Your task to perform on an android device: visit the assistant section in the google photos Image 0: 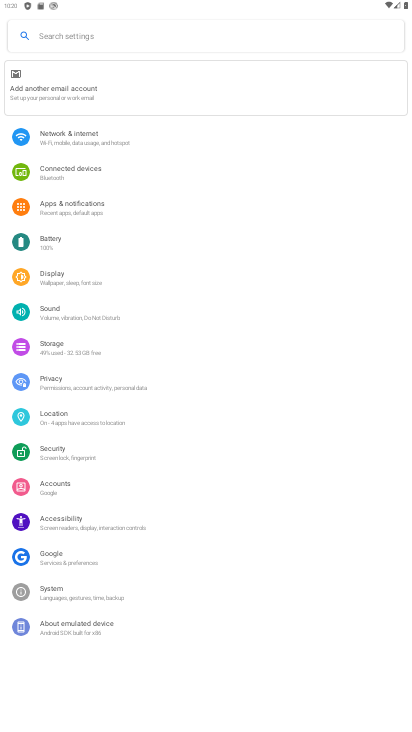
Step 0: press home button
Your task to perform on an android device: visit the assistant section in the google photos Image 1: 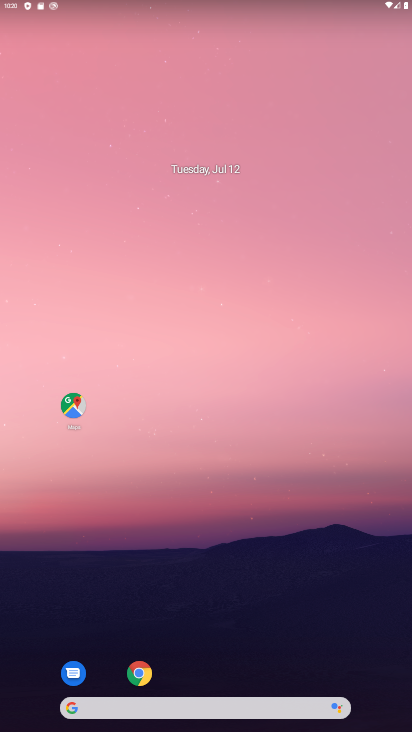
Step 1: drag from (238, 677) to (247, 108)
Your task to perform on an android device: visit the assistant section in the google photos Image 2: 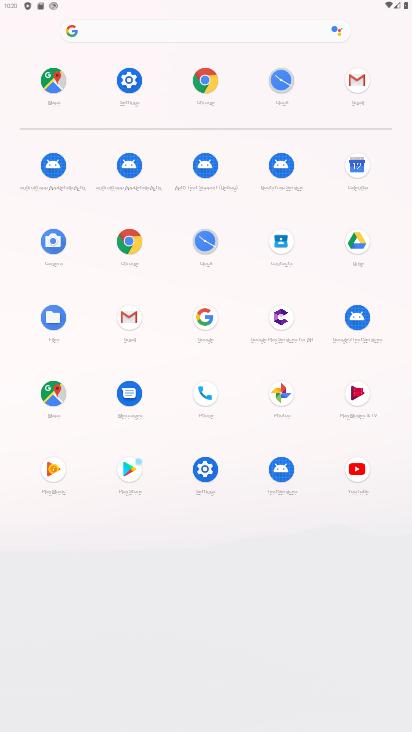
Step 2: click (285, 396)
Your task to perform on an android device: visit the assistant section in the google photos Image 3: 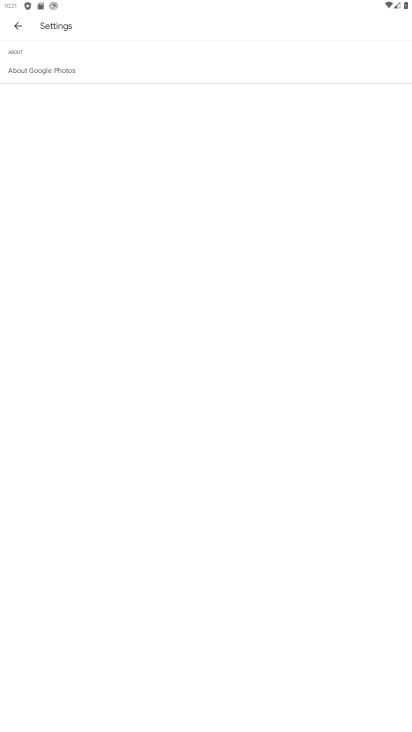
Step 3: click (13, 23)
Your task to perform on an android device: visit the assistant section in the google photos Image 4: 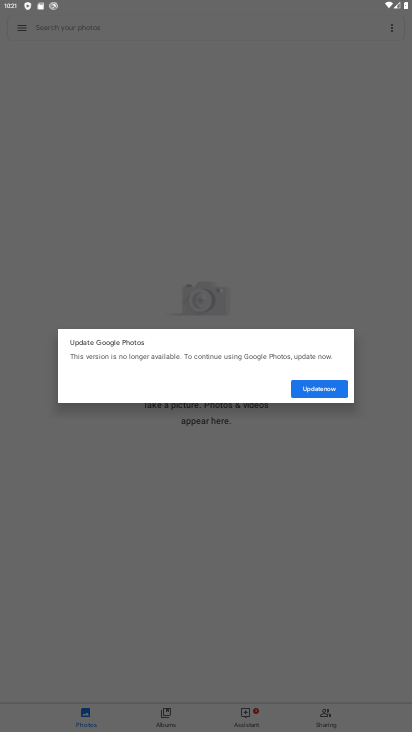
Step 4: click (155, 592)
Your task to perform on an android device: visit the assistant section in the google photos Image 5: 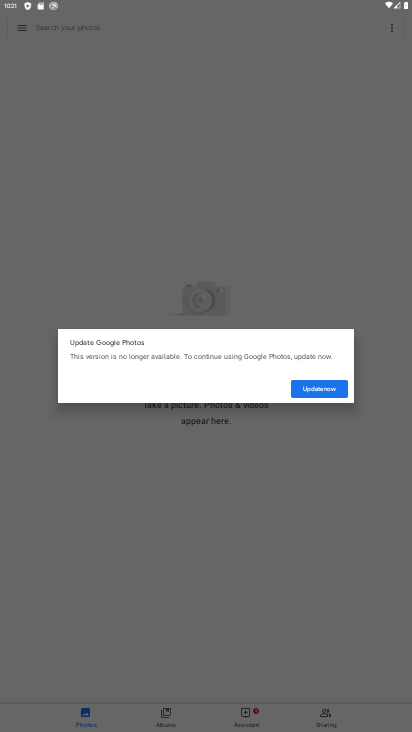
Step 5: click (169, 564)
Your task to perform on an android device: visit the assistant section in the google photos Image 6: 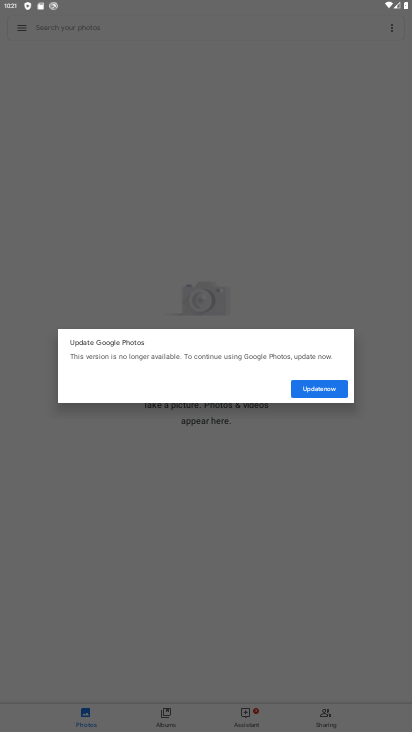
Step 6: drag from (41, 695) to (73, 668)
Your task to perform on an android device: visit the assistant section in the google photos Image 7: 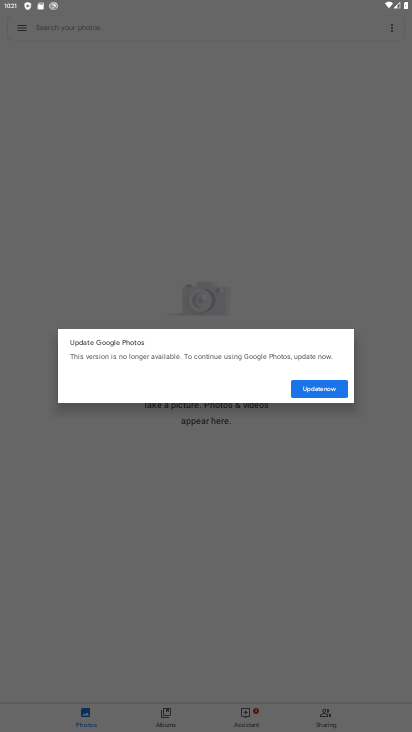
Step 7: click (320, 388)
Your task to perform on an android device: visit the assistant section in the google photos Image 8: 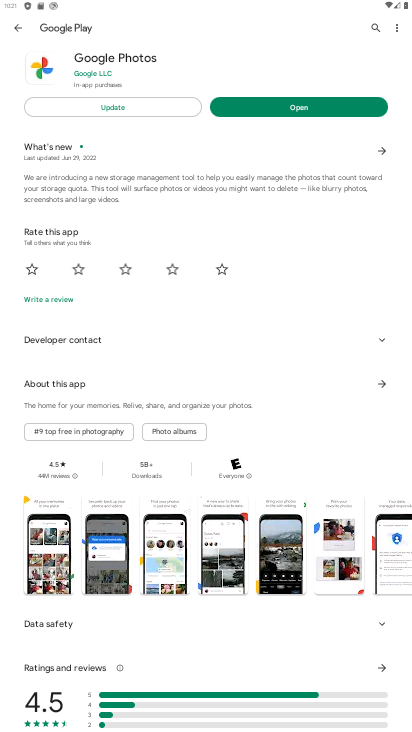
Step 8: click (133, 103)
Your task to perform on an android device: visit the assistant section in the google photos Image 9: 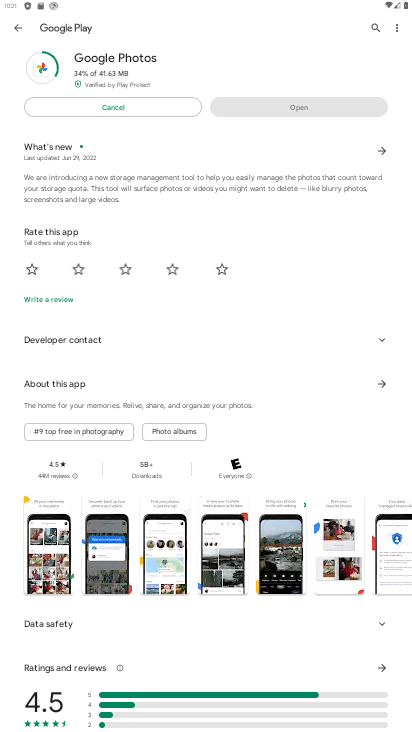
Step 9: task complete